Your task to perform on an android device: turn on location history Image 0: 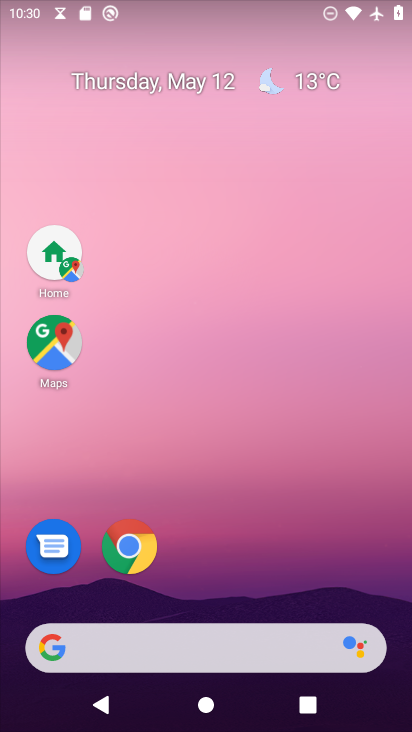
Step 0: press home button
Your task to perform on an android device: turn on location history Image 1: 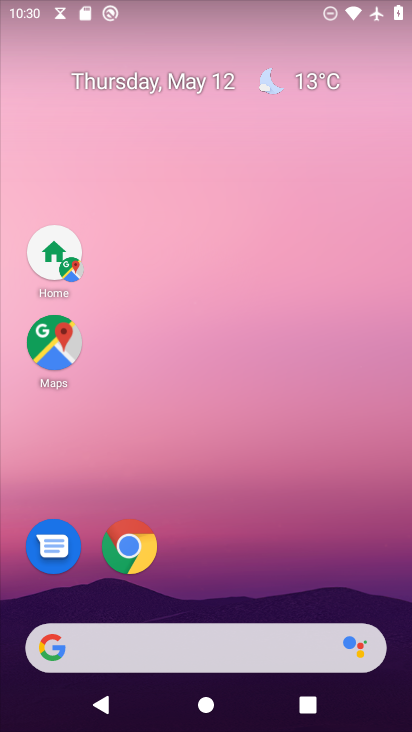
Step 1: drag from (177, 641) to (328, 168)
Your task to perform on an android device: turn on location history Image 2: 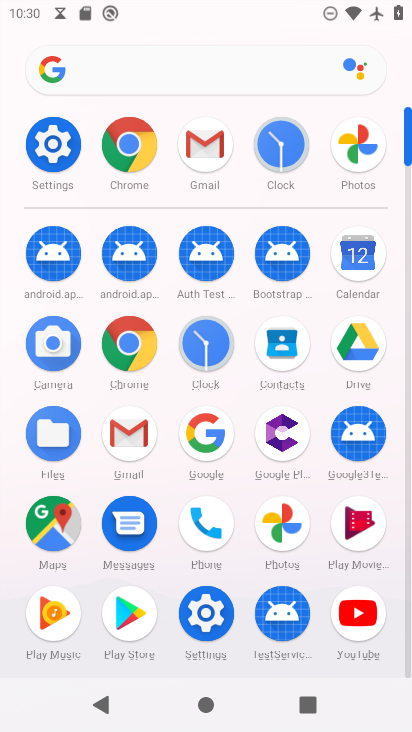
Step 2: click (55, 521)
Your task to perform on an android device: turn on location history Image 3: 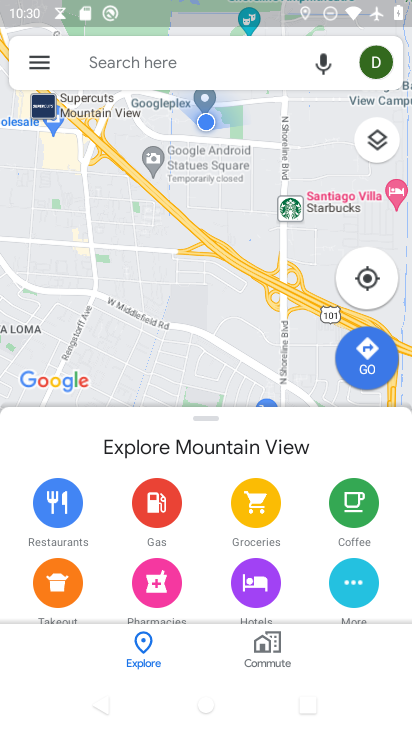
Step 3: click (38, 68)
Your task to perform on an android device: turn on location history Image 4: 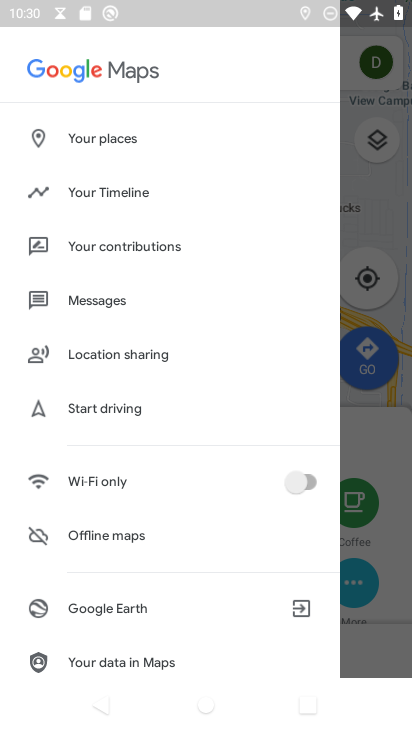
Step 4: click (129, 193)
Your task to perform on an android device: turn on location history Image 5: 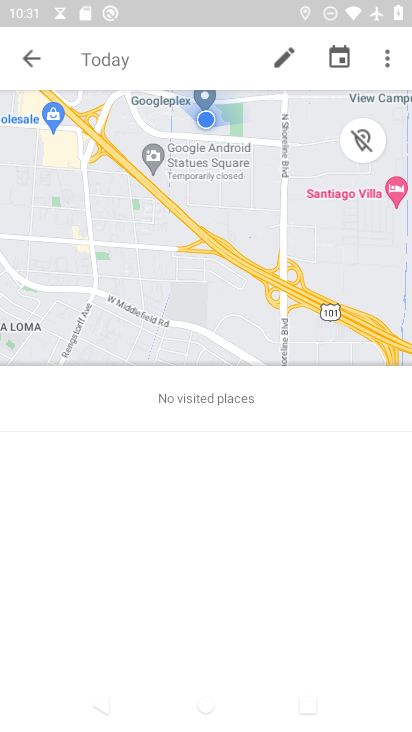
Step 5: click (387, 65)
Your task to perform on an android device: turn on location history Image 6: 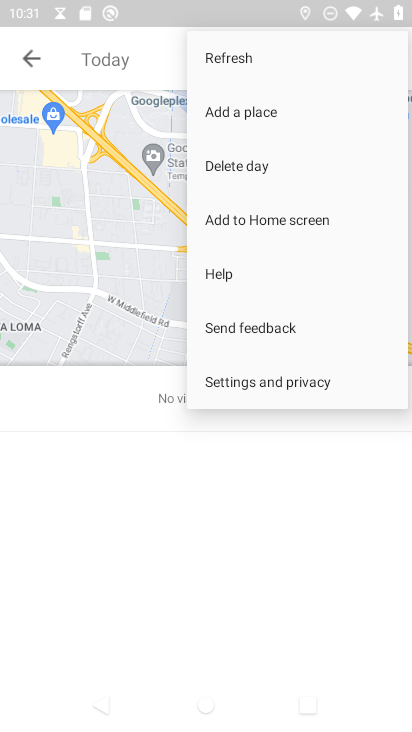
Step 6: click (267, 381)
Your task to perform on an android device: turn on location history Image 7: 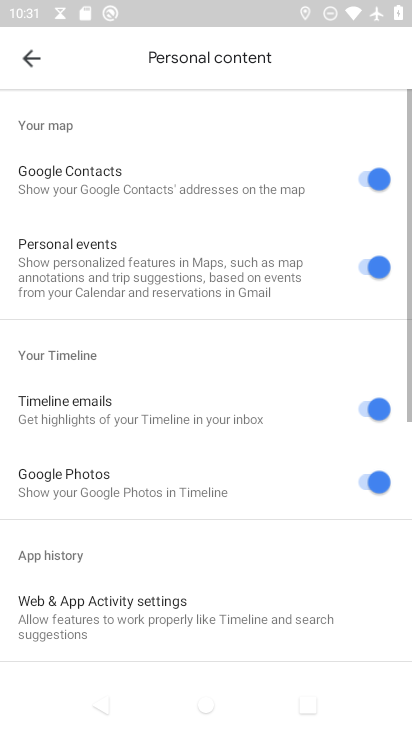
Step 7: drag from (174, 592) to (360, 134)
Your task to perform on an android device: turn on location history Image 8: 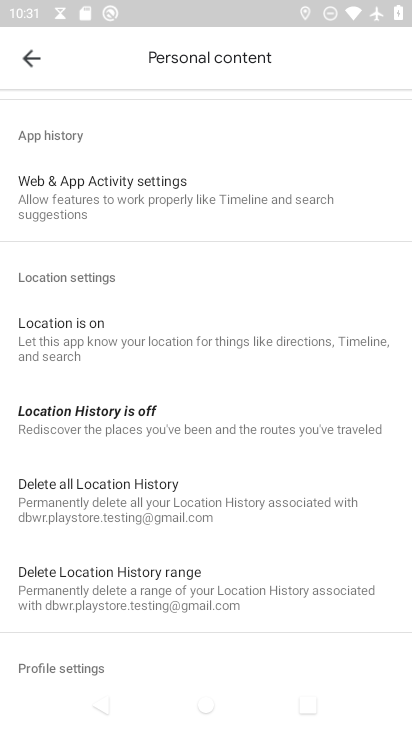
Step 8: click (143, 403)
Your task to perform on an android device: turn on location history Image 9: 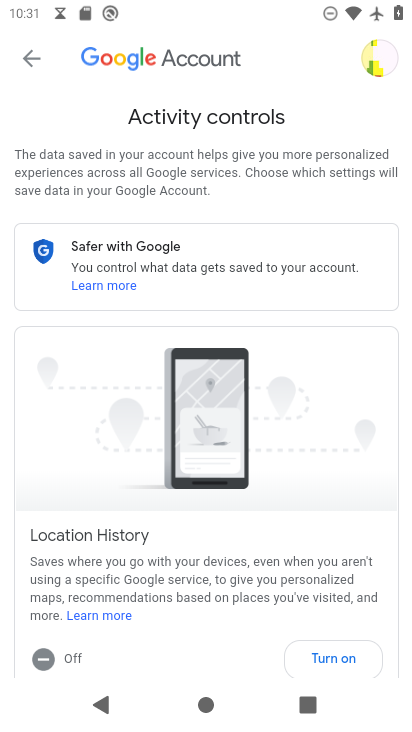
Step 9: drag from (229, 601) to (344, 208)
Your task to perform on an android device: turn on location history Image 10: 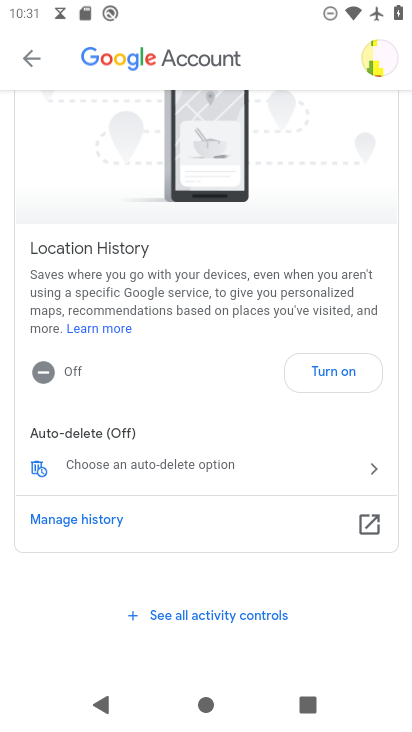
Step 10: click (326, 373)
Your task to perform on an android device: turn on location history Image 11: 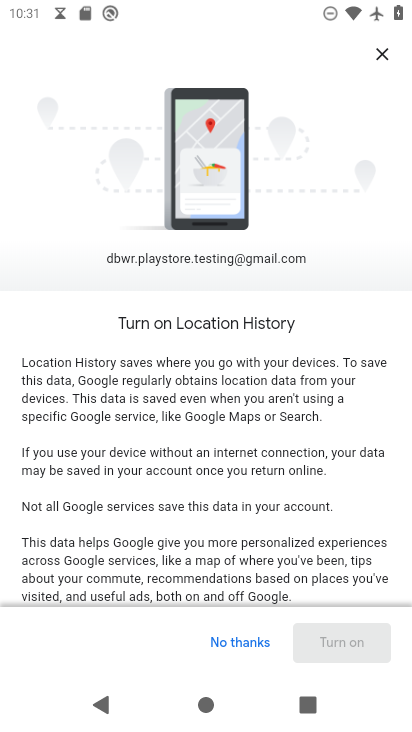
Step 11: drag from (253, 535) to (398, 117)
Your task to perform on an android device: turn on location history Image 12: 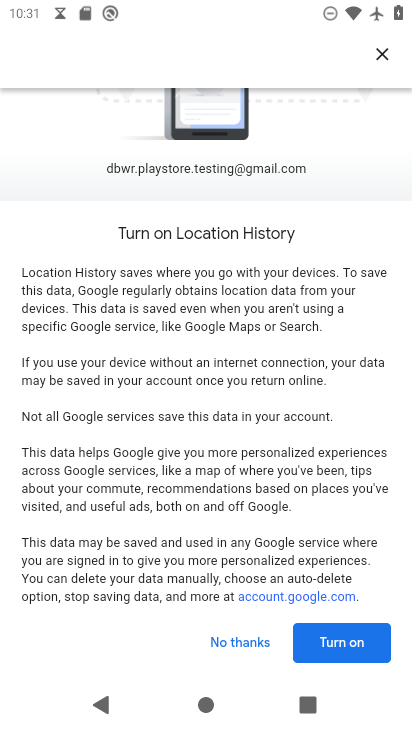
Step 12: click (351, 646)
Your task to perform on an android device: turn on location history Image 13: 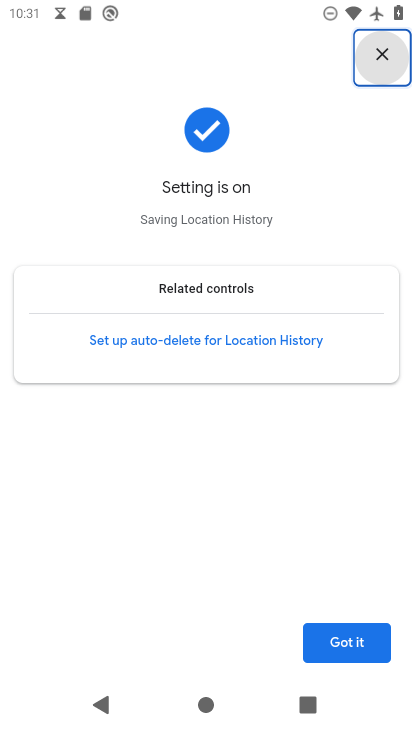
Step 13: click (356, 646)
Your task to perform on an android device: turn on location history Image 14: 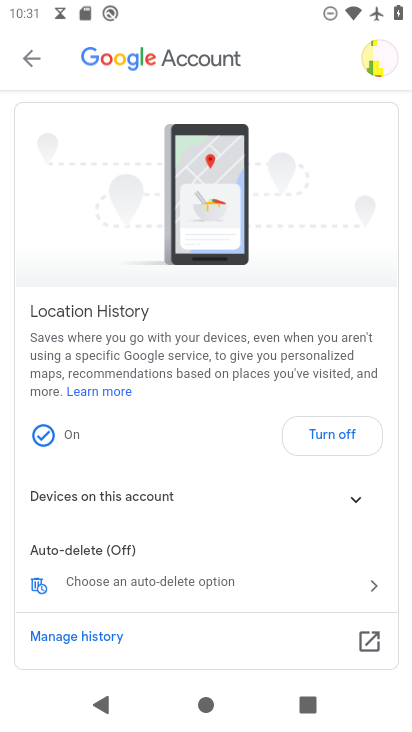
Step 14: task complete